Your task to perform on an android device: delete location history Image 0: 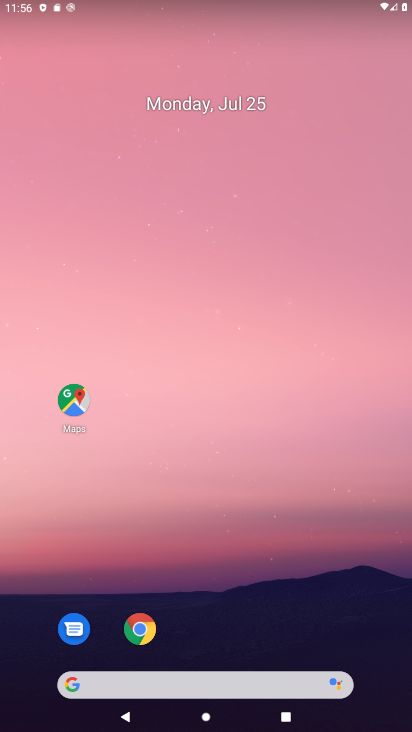
Step 0: drag from (352, 543) to (214, 44)
Your task to perform on an android device: delete location history Image 1: 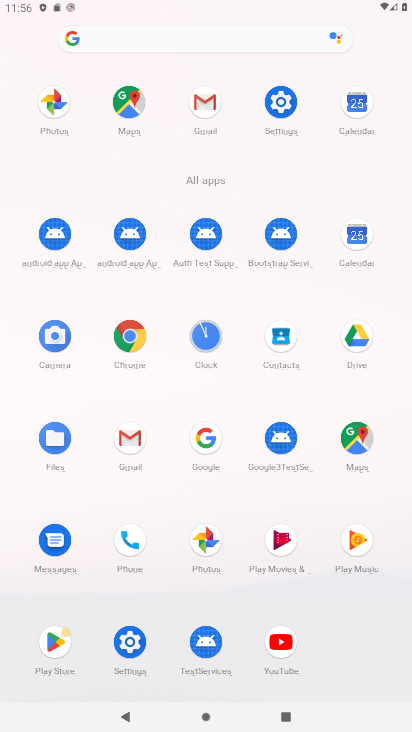
Step 1: click (126, 635)
Your task to perform on an android device: delete location history Image 2: 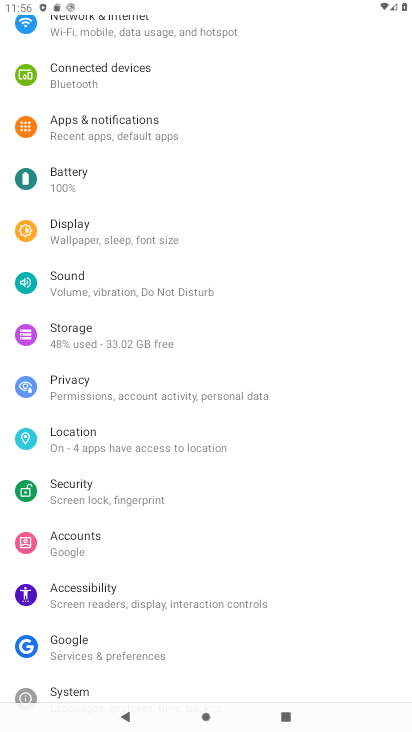
Step 2: click (117, 436)
Your task to perform on an android device: delete location history Image 3: 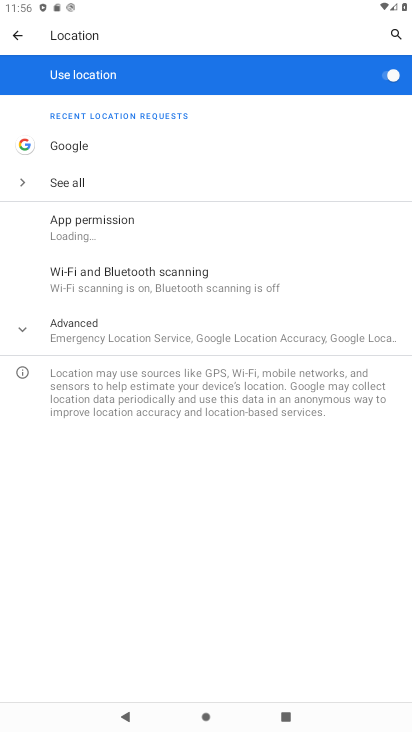
Step 3: press home button
Your task to perform on an android device: delete location history Image 4: 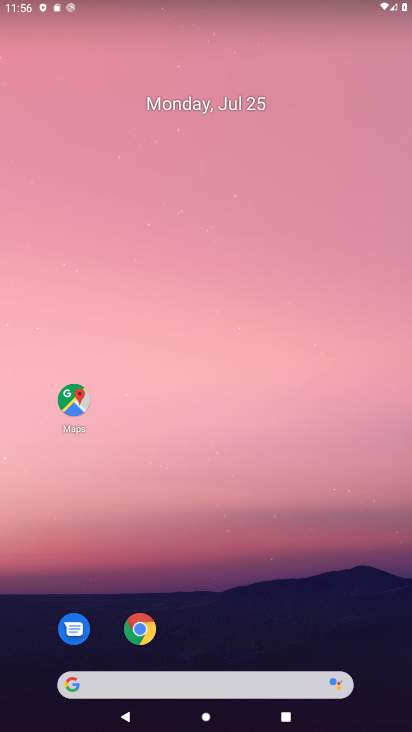
Step 4: click (86, 405)
Your task to perform on an android device: delete location history Image 5: 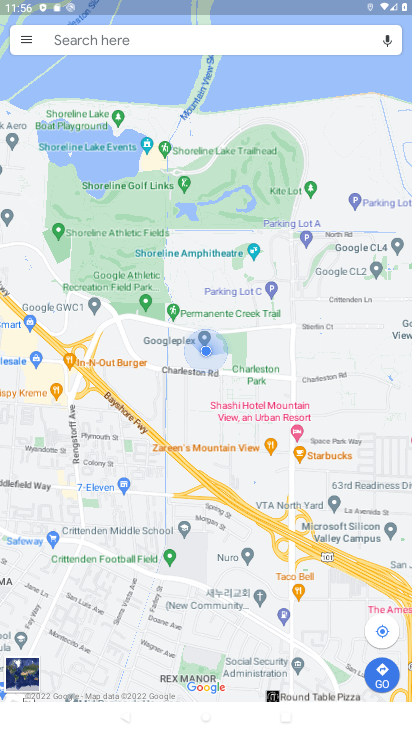
Step 5: click (15, 35)
Your task to perform on an android device: delete location history Image 6: 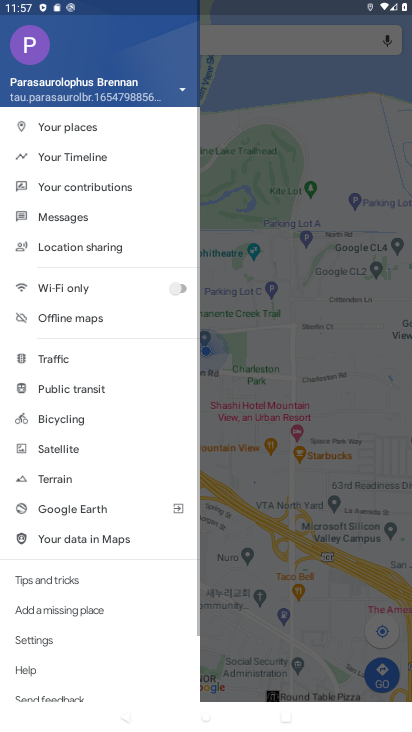
Step 6: click (86, 156)
Your task to perform on an android device: delete location history Image 7: 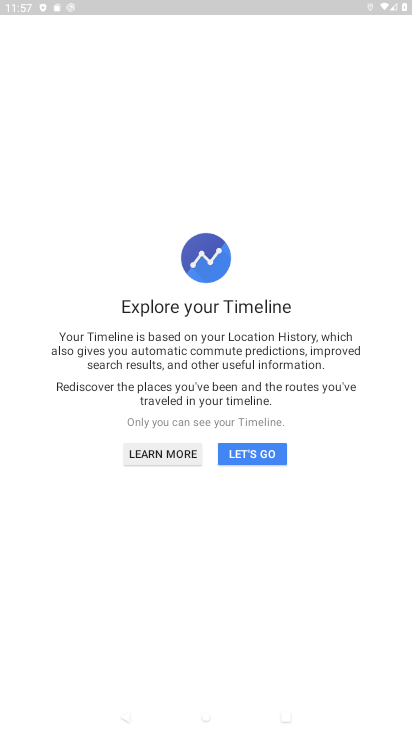
Step 7: click (267, 452)
Your task to perform on an android device: delete location history Image 8: 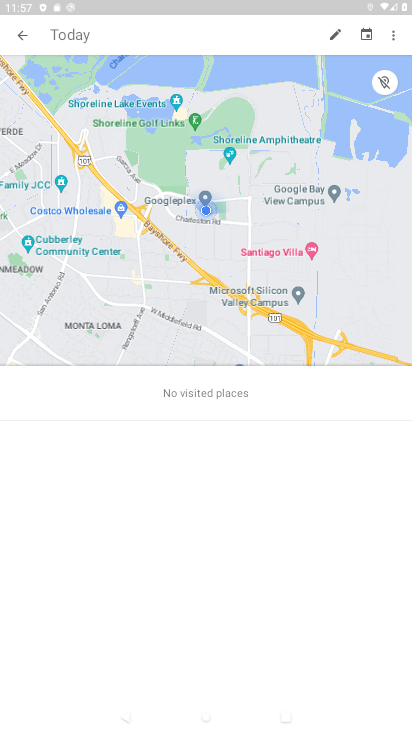
Step 8: click (401, 36)
Your task to perform on an android device: delete location history Image 9: 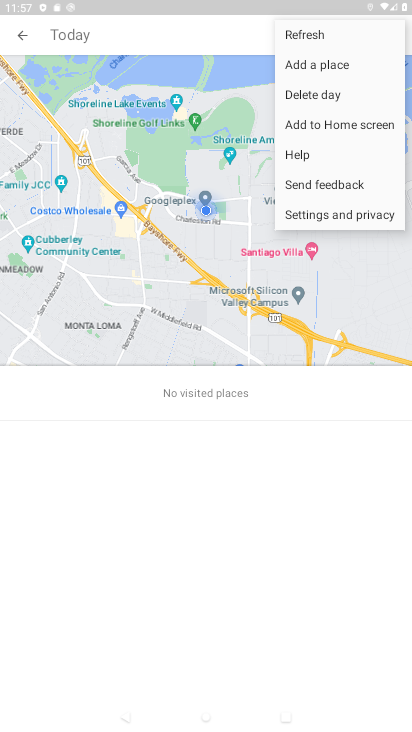
Step 9: click (321, 97)
Your task to perform on an android device: delete location history Image 10: 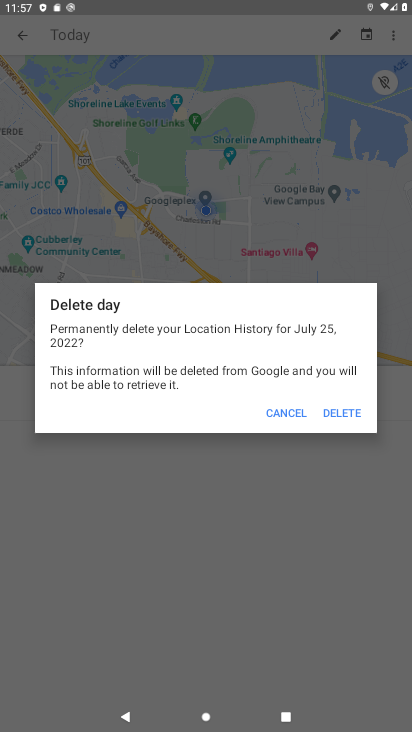
Step 10: click (350, 405)
Your task to perform on an android device: delete location history Image 11: 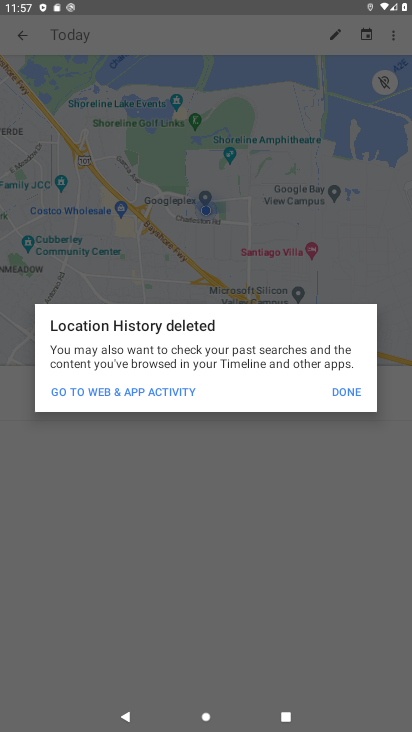
Step 11: click (351, 394)
Your task to perform on an android device: delete location history Image 12: 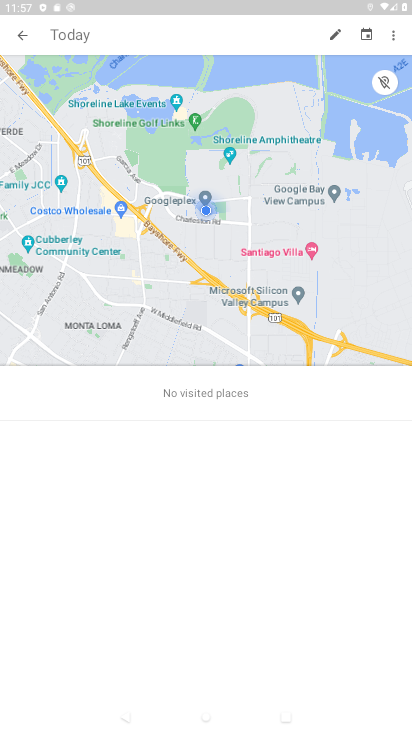
Step 12: task complete